Your task to perform on an android device: open device folders in google photos Image 0: 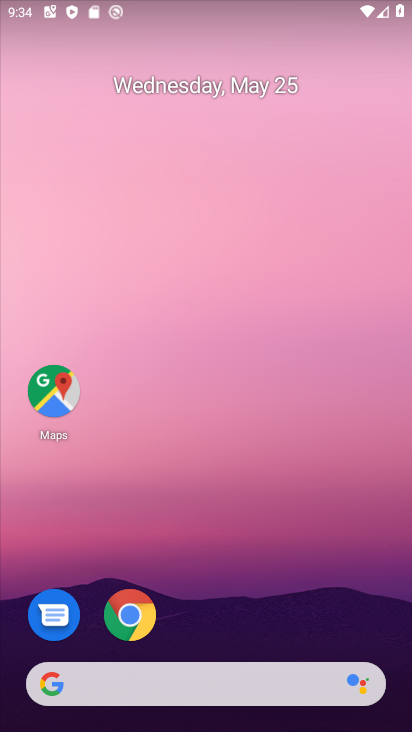
Step 0: drag from (254, 568) to (318, 47)
Your task to perform on an android device: open device folders in google photos Image 1: 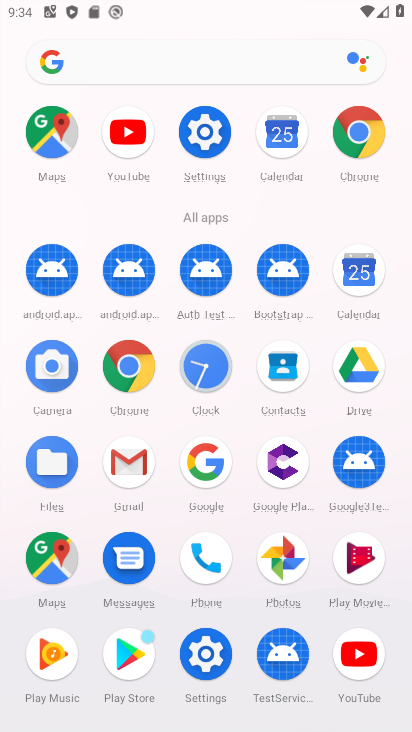
Step 1: click (279, 567)
Your task to perform on an android device: open device folders in google photos Image 2: 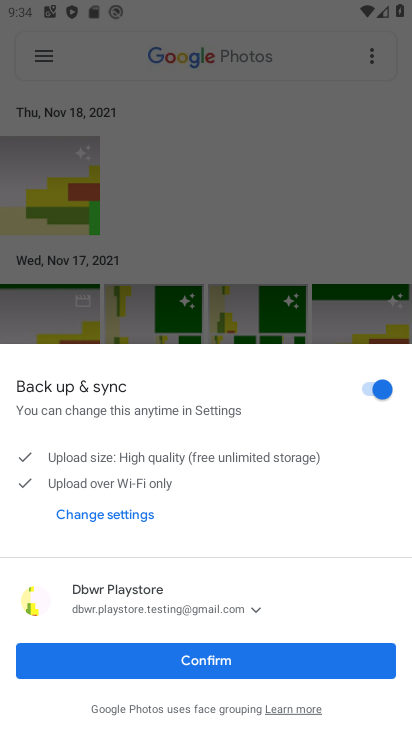
Step 2: click (282, 656)
Your task to perform on an android device: open device folders in google photos Image 3: 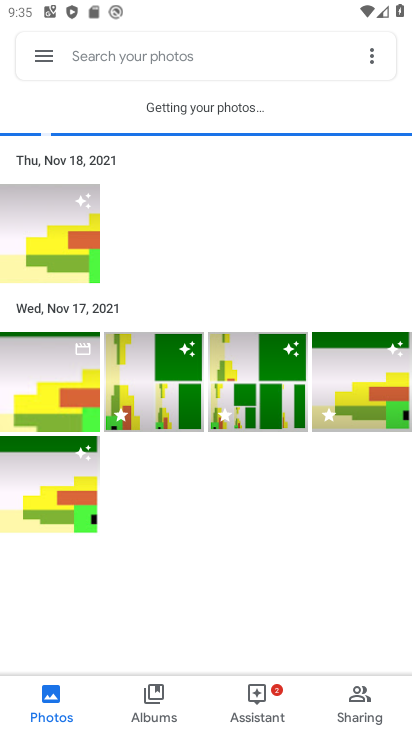
Step 3: click (45, 51)
Your task to perform on an android device: open device folders in google photos Image 4: 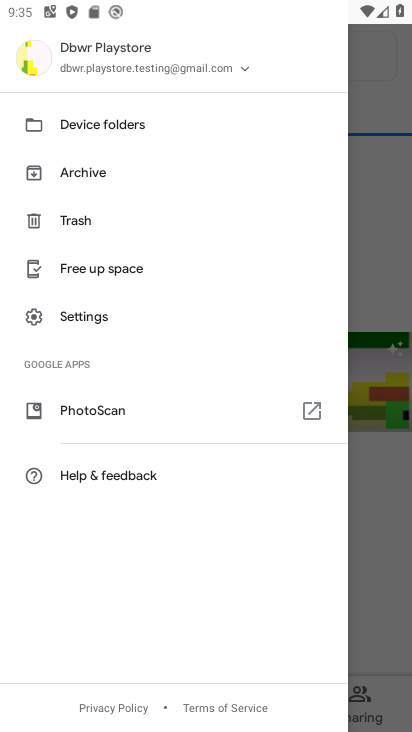
Step 4: click (73, 114)
Your task to perform on an android device: open device folders in google photos Image 5: 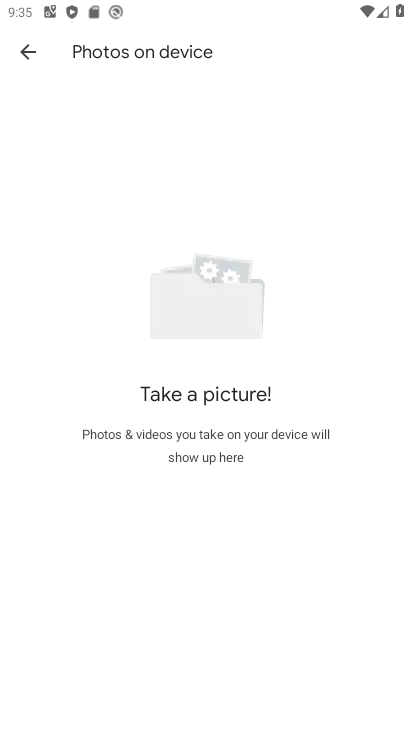
Step 5: task complete